Your task to perform on an android device: View the shopping cart on newegg.com. Add logitech g903 to the cart on newegg.com Image 0: 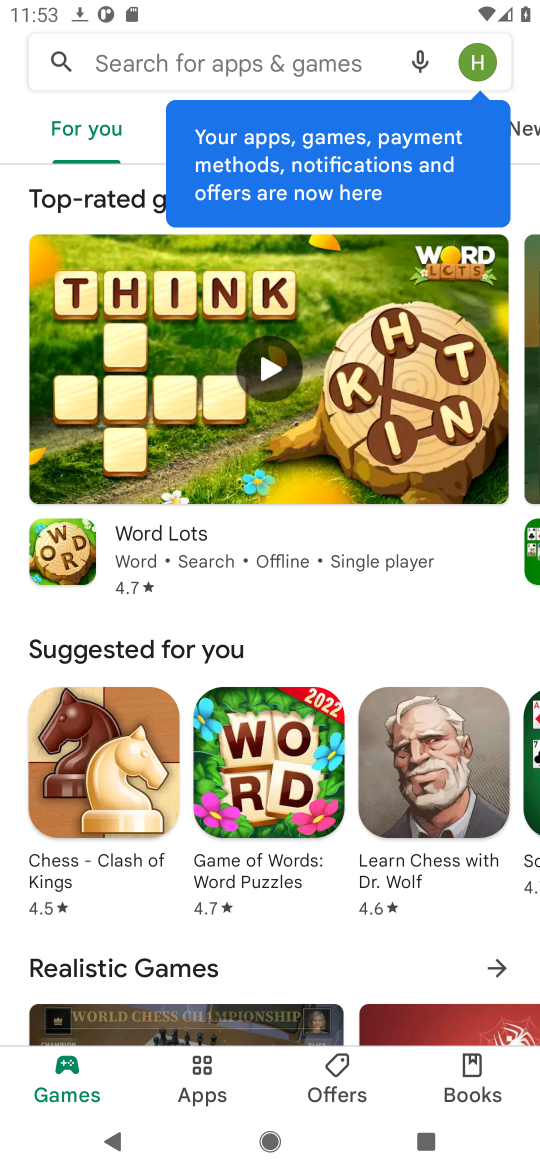
Step 0: press home button
Your task to perform on an android device: View the shopping cart on newegg.com. Add logitech g903 to the cart on newegg.com Image 1: 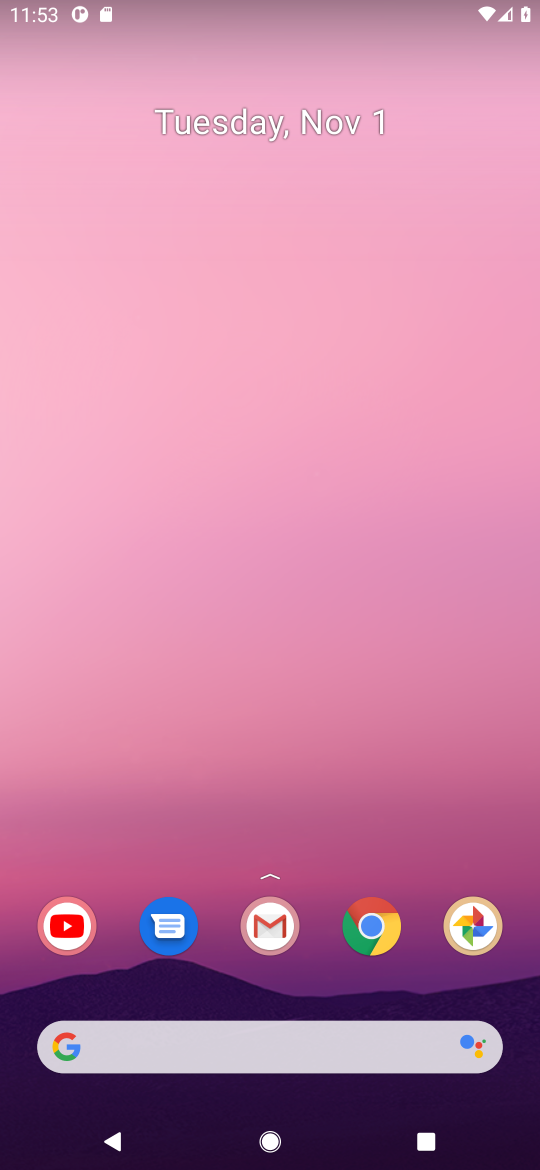
Step 1: click (380, 919)
Your task to perform on an android device: View the shopping cart on newegg.com. Add logitech g903 to the cart on newegg.com Image 2: 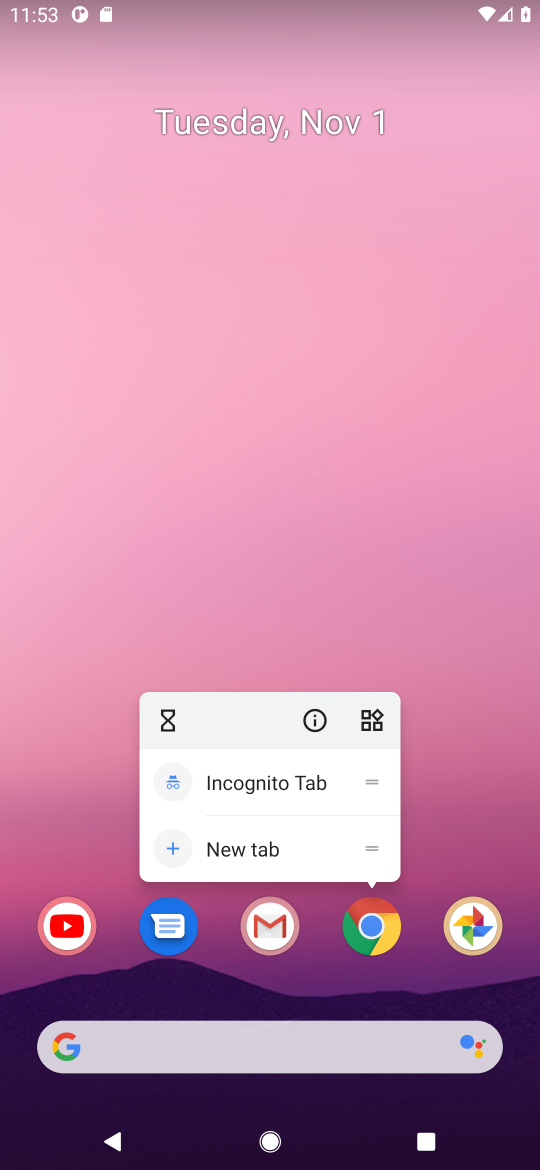
Step 2: click (369, 930)
Your task to perform on an android device: View the shopping cart on newegg.com. Add logitech g903 to the cart on newegg.com Image 3: 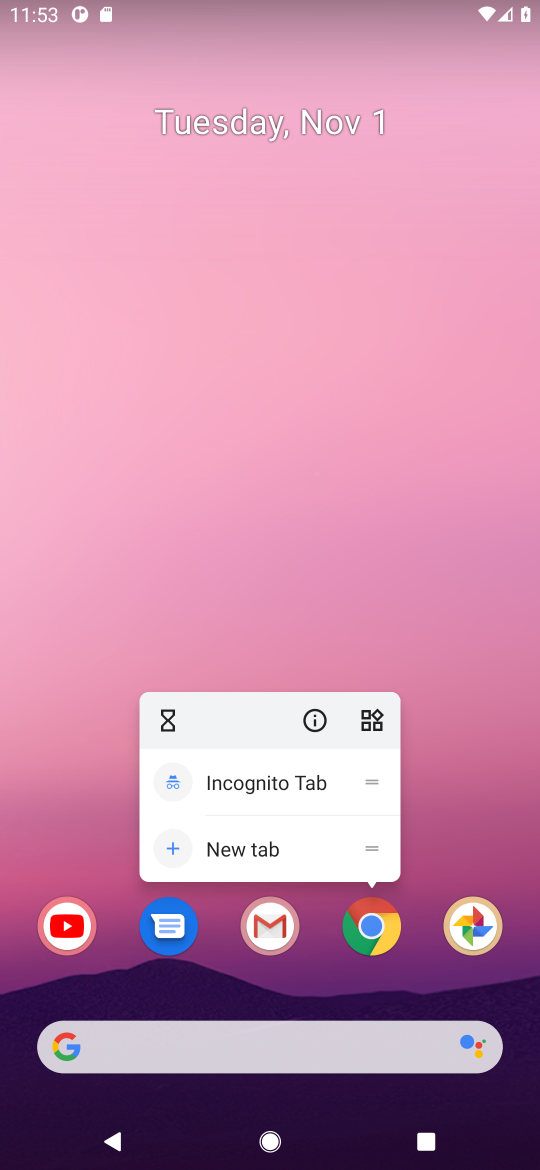
Step 3: click (372, 960)
Your task to perform on an android device: View the shopping cart on newegg.com. Add logitech g903 to the cart on newegg.com Image 4: 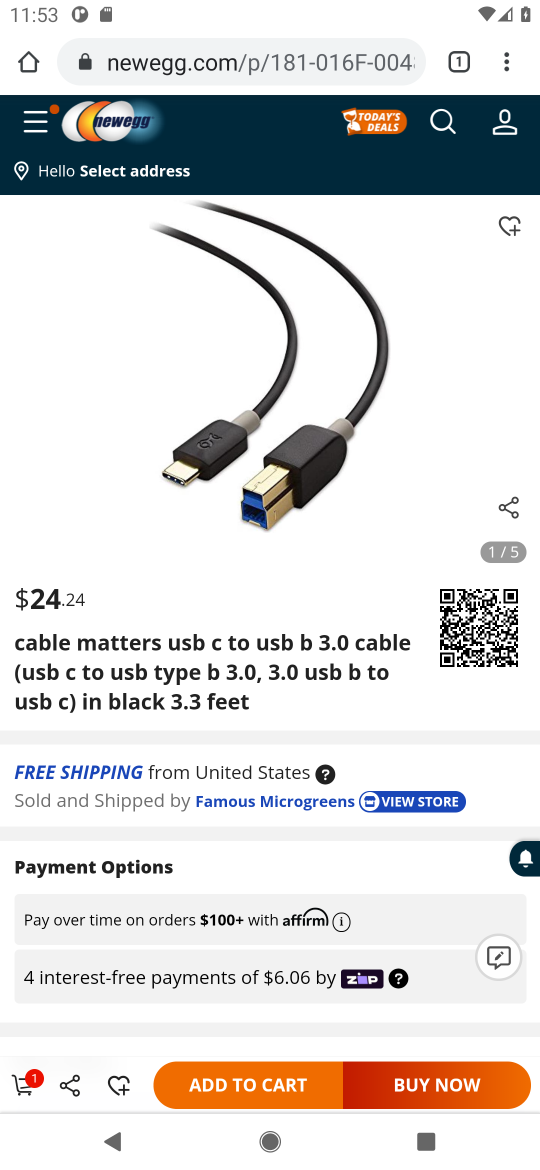
Step 4: drag from (214, 161) to (114, 801)
Your task to perform on an android device: View the shopping cart on newegg.com. Add logitech g903 to the cart on newegg.com Image 5: 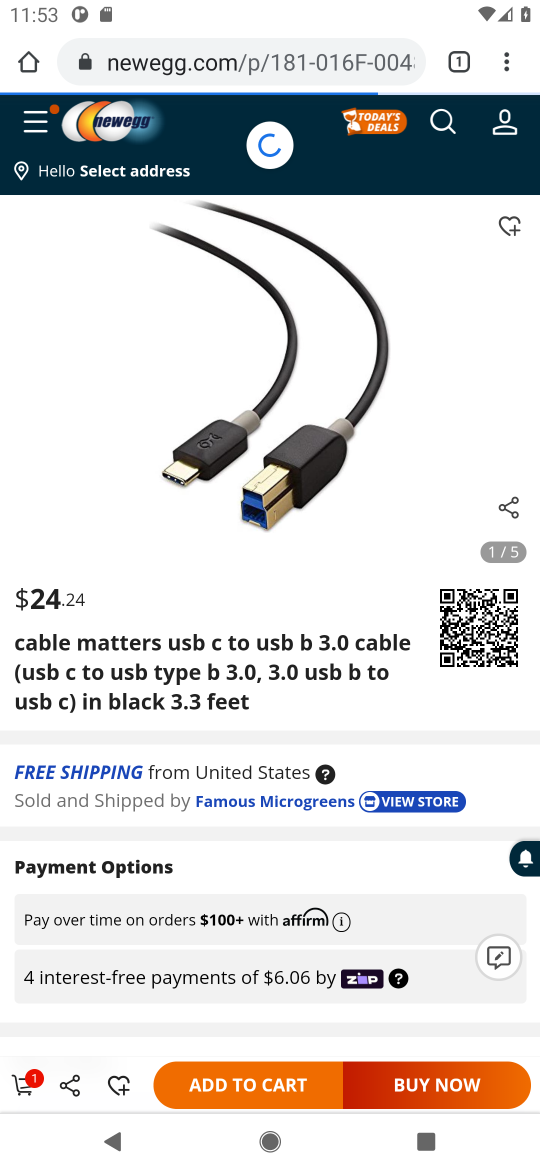
Step 5: press back button
Your task to perform on an android device: View the shopping cart on newegg.com. Add logitech g903 to the cart on newegg.com Image 6: 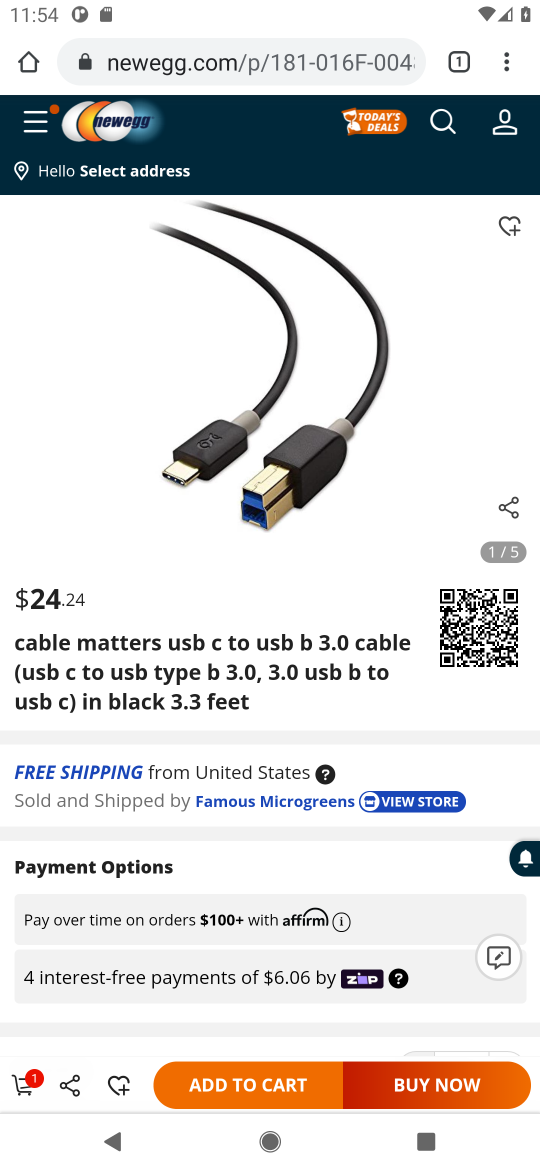
Step 6: click (439, 123)
Your task to perform on an android device: View the shopping cart on newegg.com. Add logitech g903 to the cart on newegg.com Image 7: 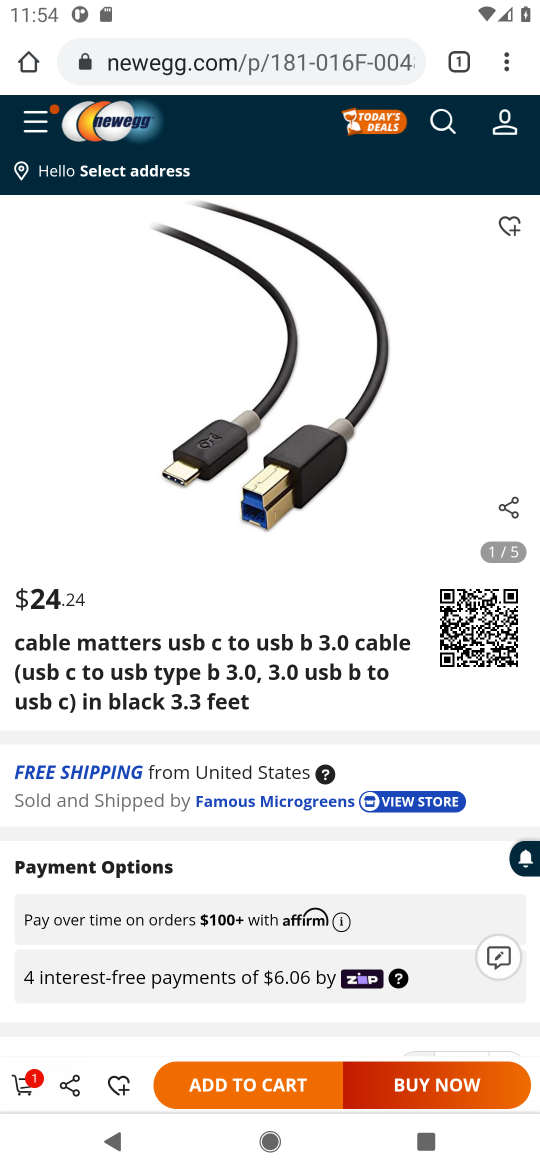
Step 7: click (407, 117)
Your task to perform on an android device: View the shopping cart on newegg.com. Add logitech g903 to the cart on newegg.com Image 8: 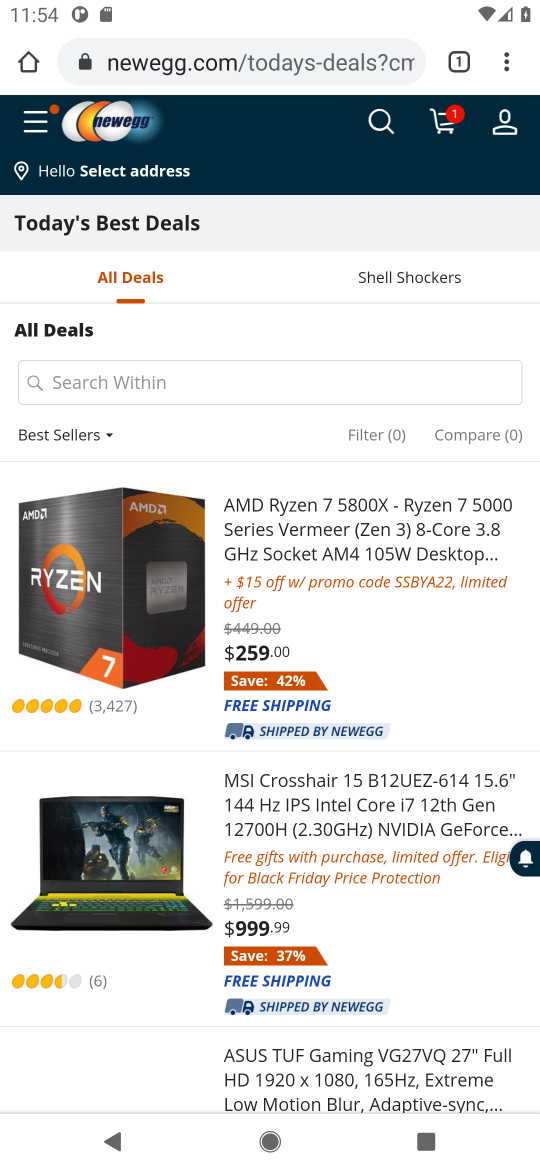
Step 8: click (369, 119)
Your task to perform on an android device: View the shopping cart on newegg.com. Add logitech g903 to the cart on newegg.com Image 9: 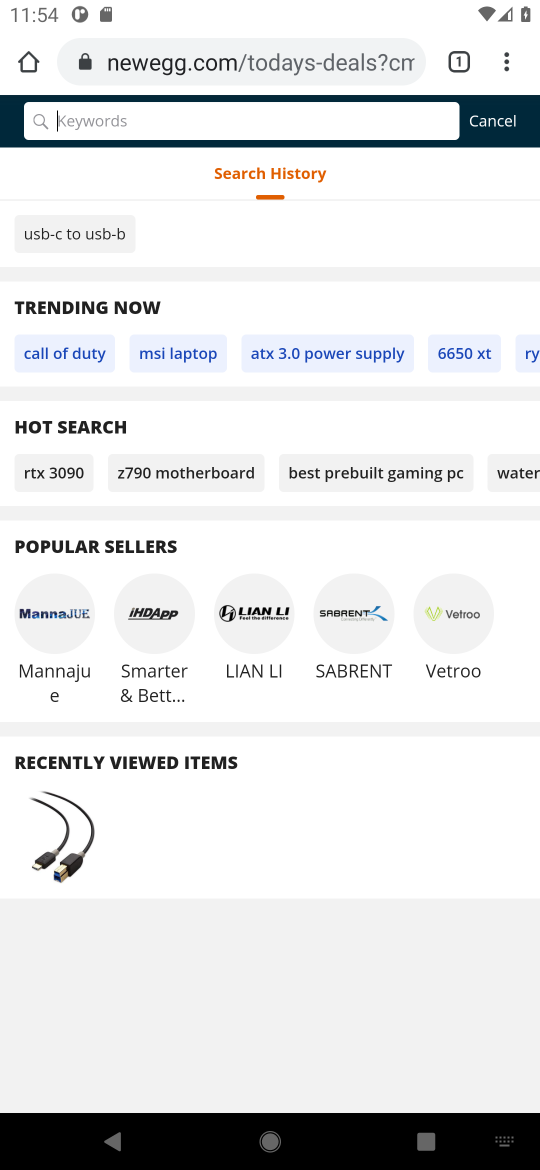
Step 9: type "logitech g903"
Your task to perform on an android device: View the shopping cart on newegg.com. Add logitech g903 to the cart on newegg.com Image 10: 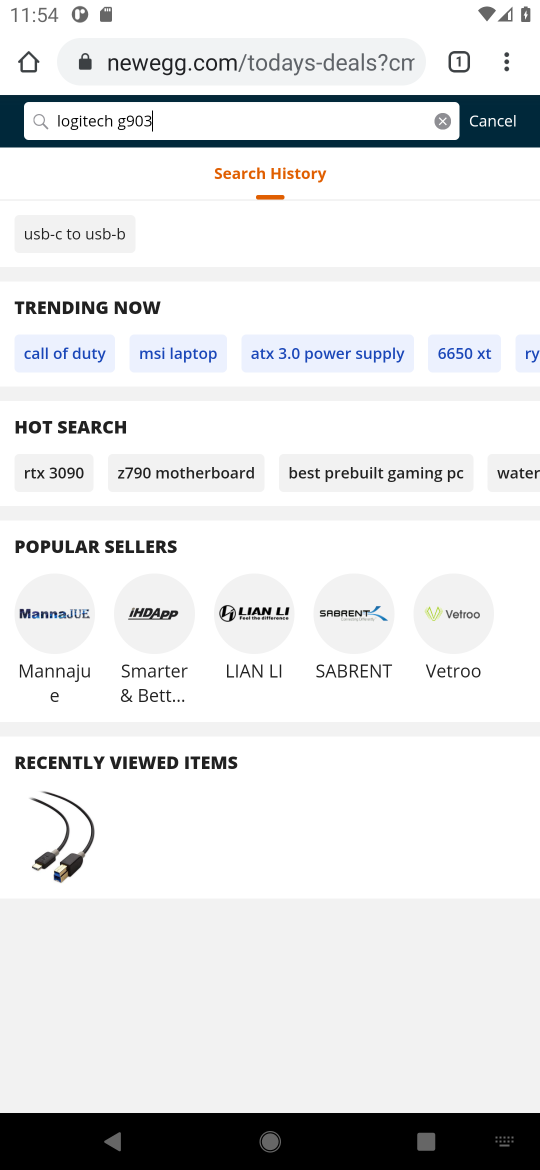
Step 10: press enter
Your task to perform on an android device: View the shopping cart on newegg.com. Add logitech g903 to the cart on newegg.com Image 11: 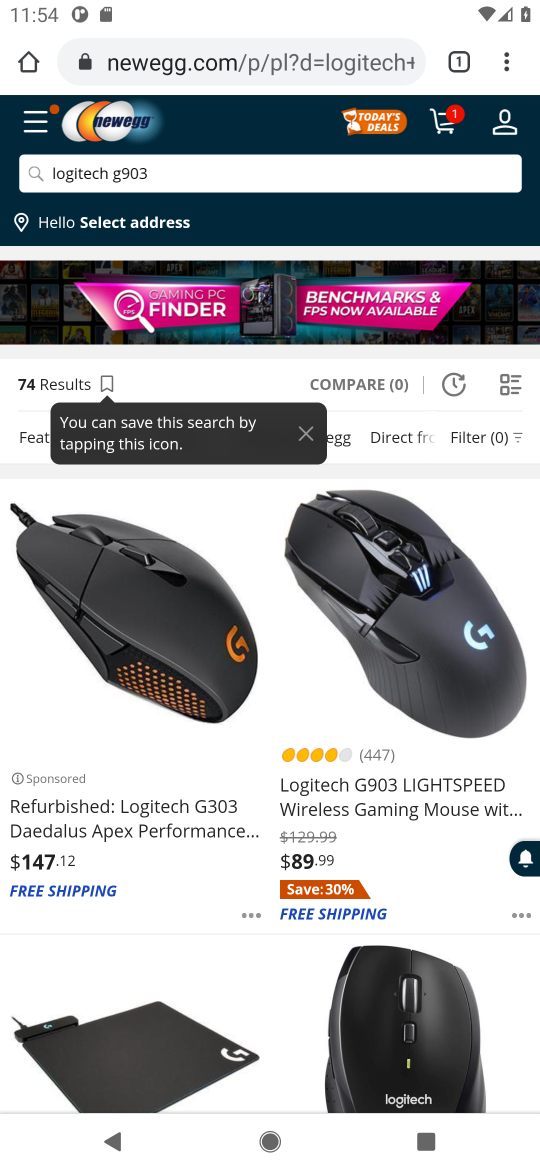
Step 11: click (443, 763)
Your task to perform on an android device: View the shopping cart on newegg.com. Add logitech g903 to the cart on newegg.com Image 12: 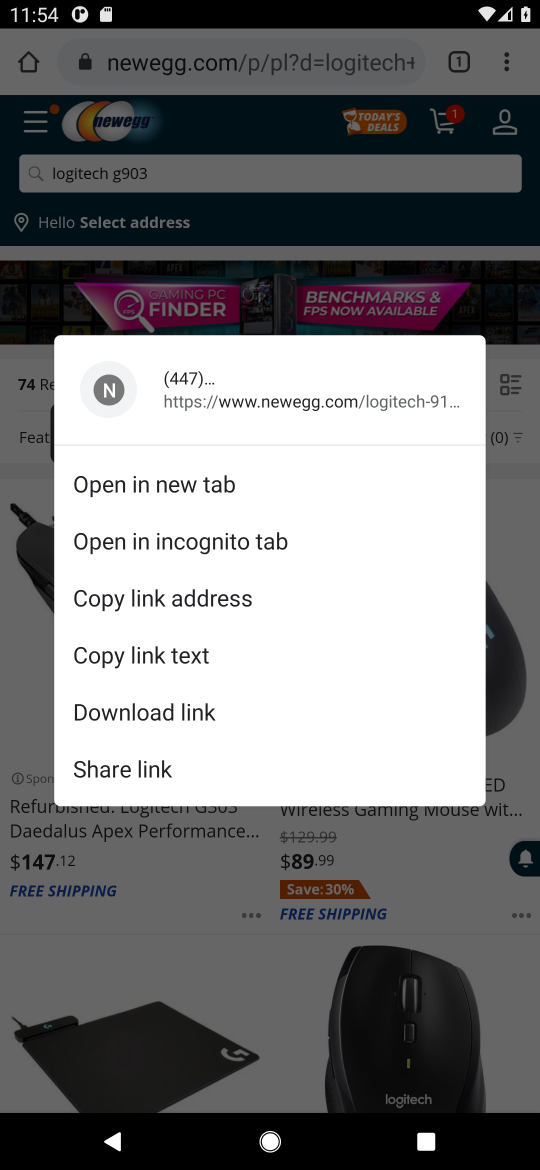
Step 12: click (398, 835)
Your task to perform on an android device: View the shopping cart on newegg.com. Add logitech g903 to the cart on newegg.com Image 13: 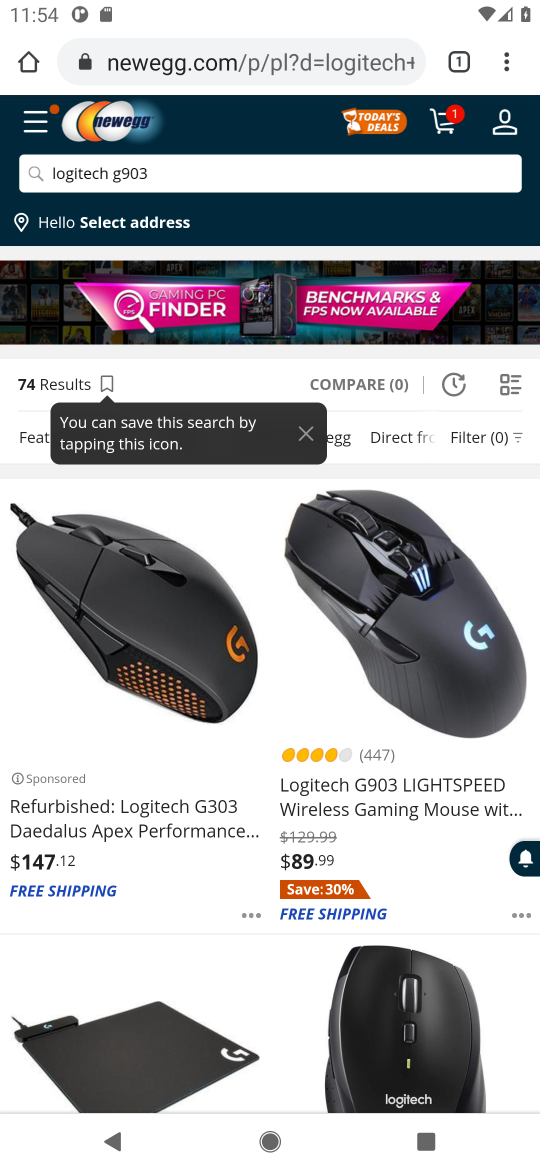
Step 13: click (417, 813)
Your task to perform on an android device: View the shopping cart on newegg.com. Add logitech g903 to the cart on newegg.com Image 14: 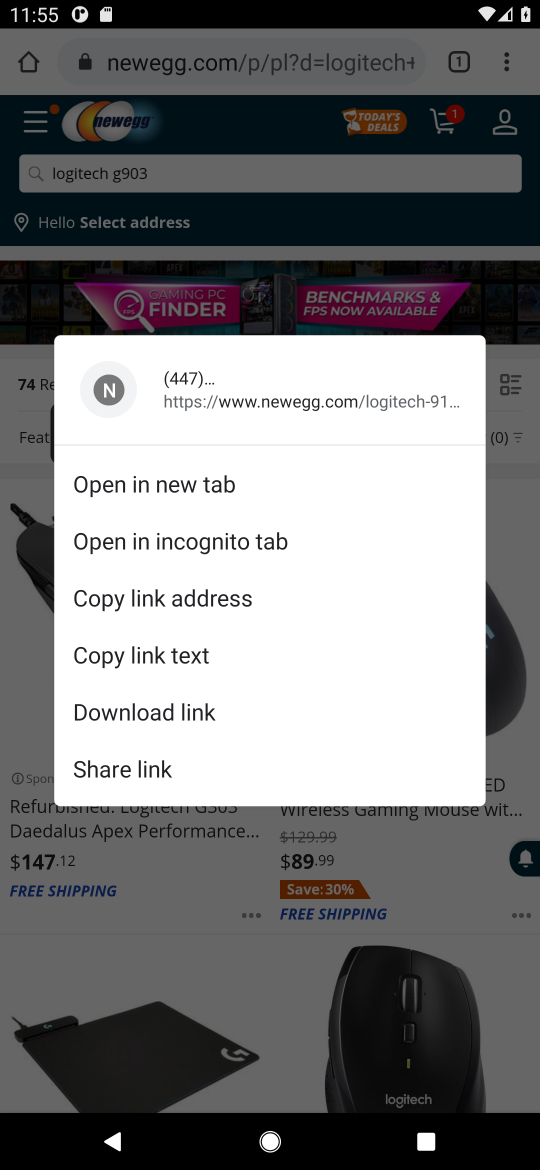
Step 14: click (502, 712)
Your task to perform on an android device: View the shopping cart on newegg.com. Add logitech g903 to the cart on newegg.com Image 15: 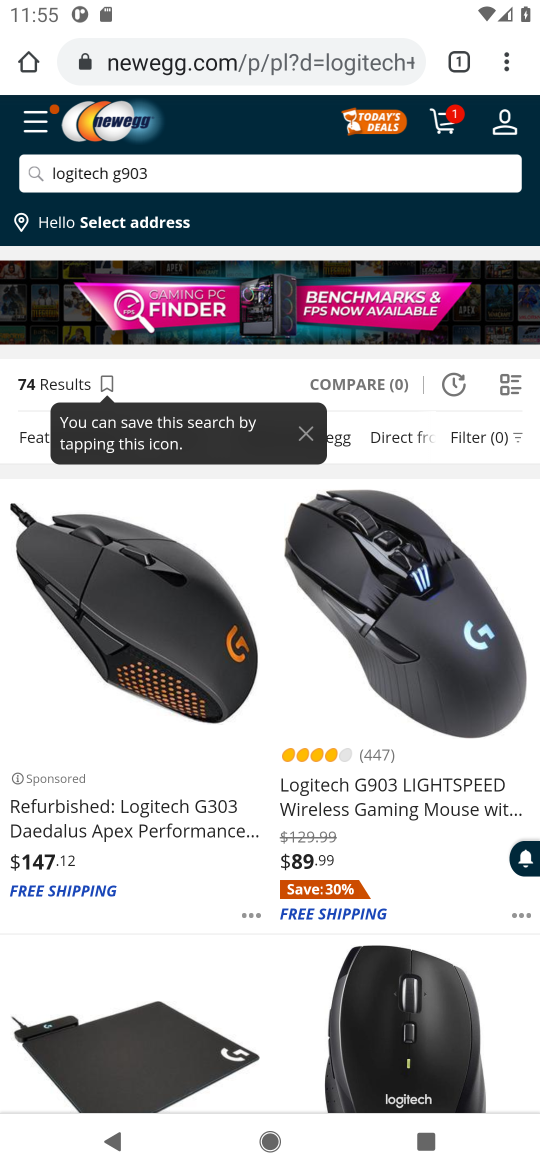
Step 15: click (455, 734)
Your task to perform on an android device: View the shopping cart on newegg.com. Add logitech g903 to the cart on newegg.com Image 16: 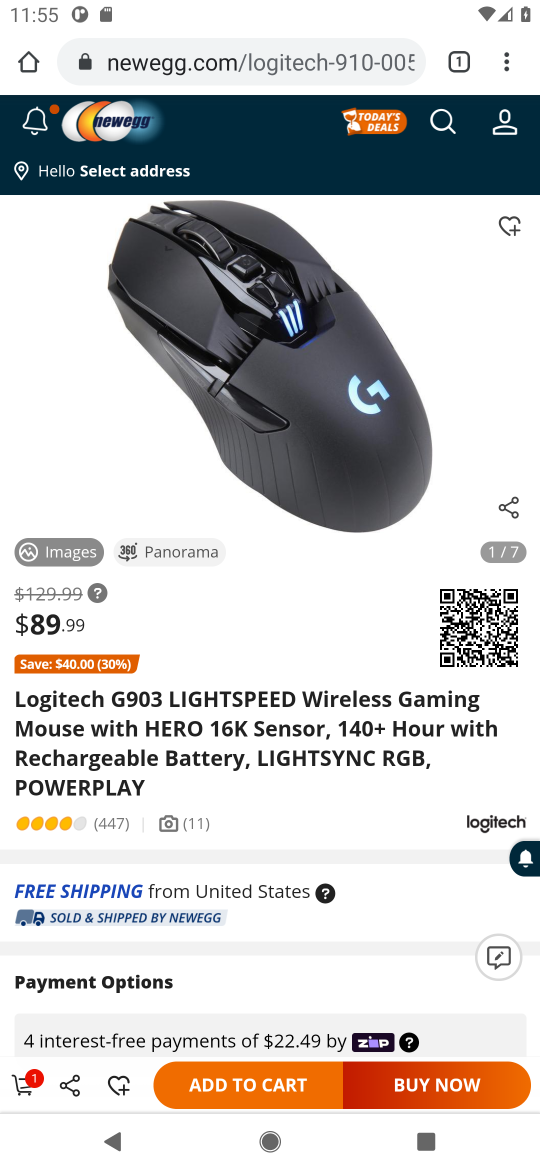
Step 16: click (233, 1090)
Your task to perform on an android device: View the shopping cart on newegg.com. Add logitech g903 to the cart on newegg.com Image 17: 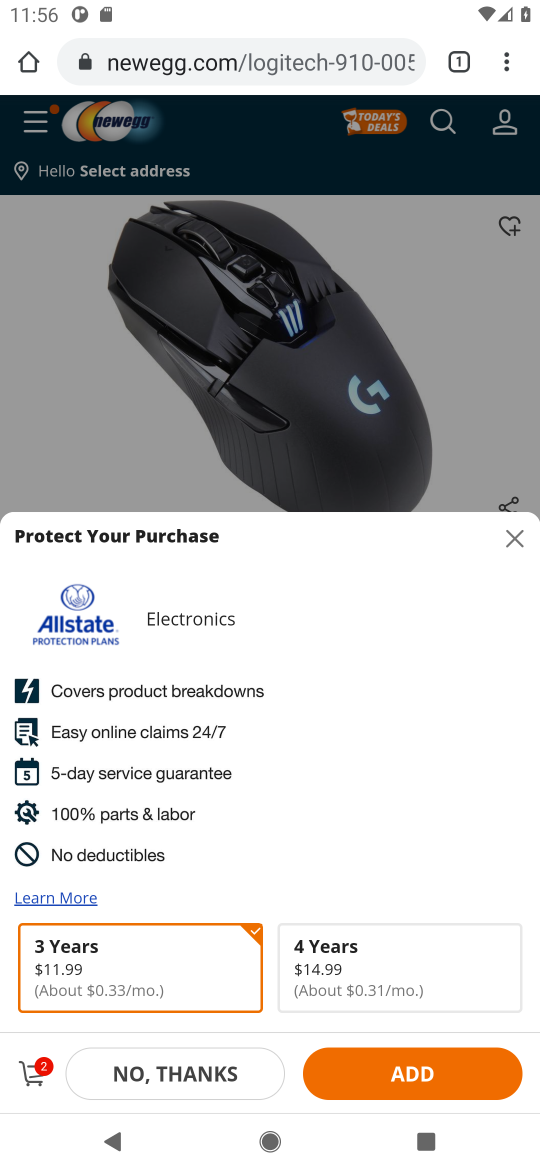
Step 17: click (195, 1077)
Your task to perform on an android device: View the shopping cart on newegg.com. Add logitech g903 to the cart on newegg.com Image 18: 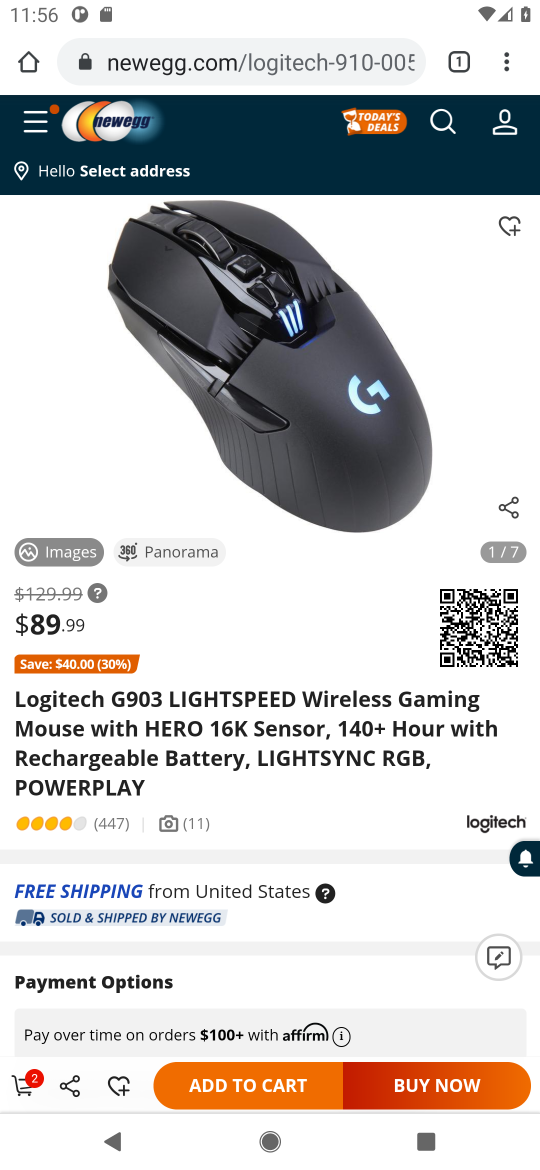
Step 18: task complete